Your task to perform on an android device: turn off wifi Image 0: 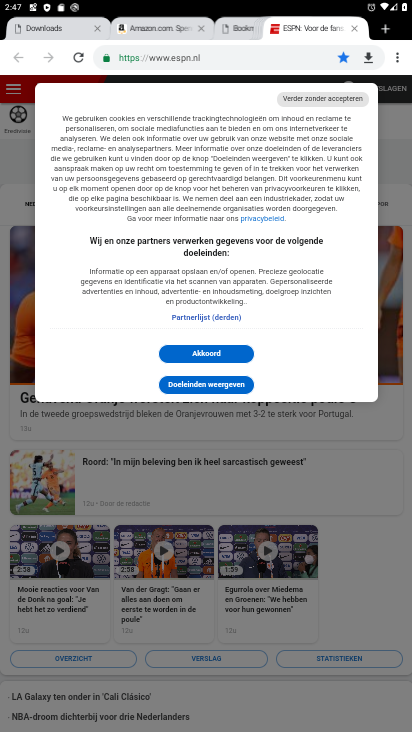
Step 0: press home button
Your task to perform on an android device: turn off wifi Image 1: 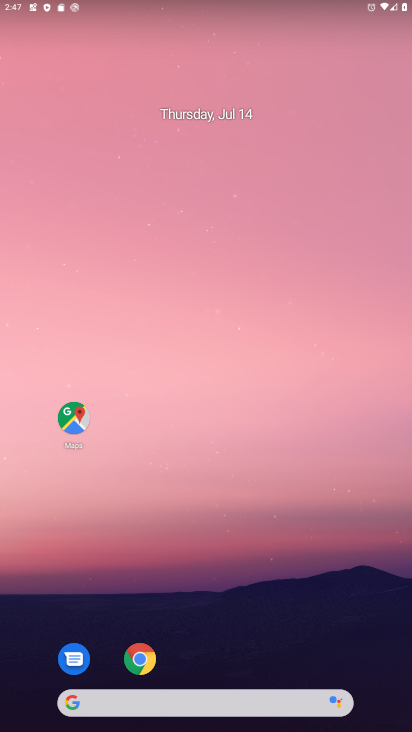
Step 1: drag from (204, 34) to (262, 499)
Your task to perform on an android device: turn off wifi Image 2: 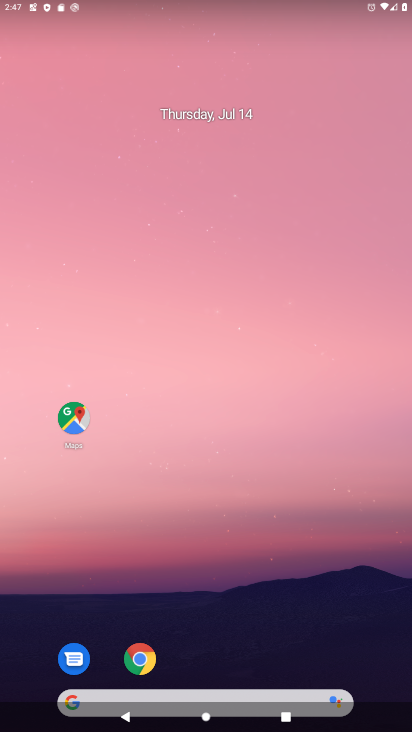
Step 2: drag from (180, 0) to (172, 446)
Your task to perform on an android device: turn off wifi Image 3: 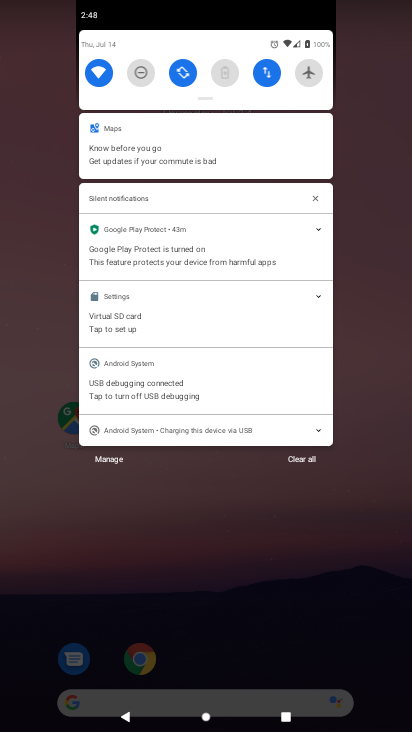
Step 3: press home button
Your task to perform on an android device: turn off wifi Image 4: 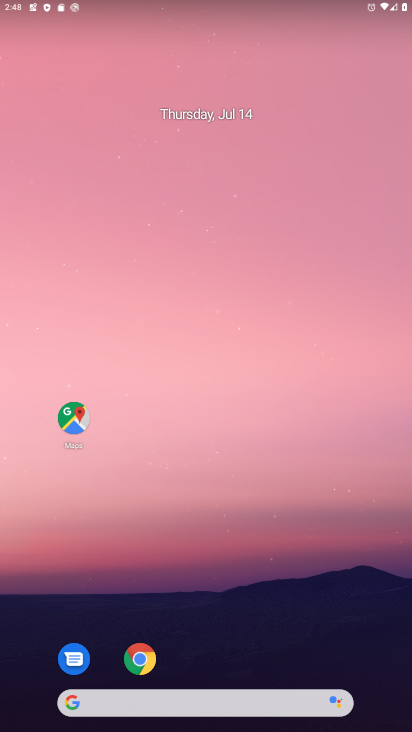
Step 4: drag from (411, 7) to (248, 615)
Your task to perform on an android device: turn off wifi Image 5: 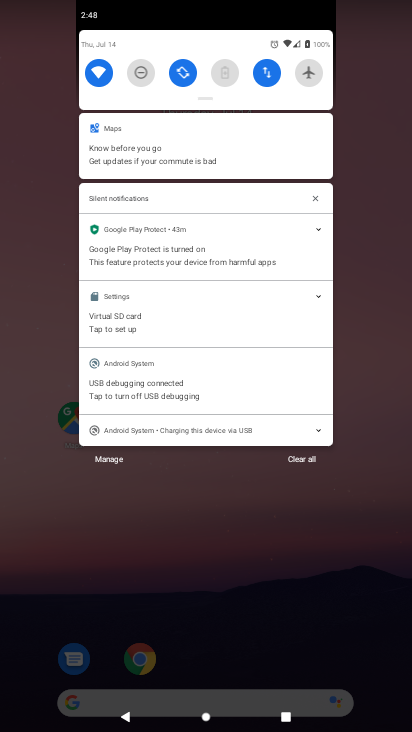
Step 5: drag from (73, 98) to (68, 149)
Your task to perform on an android device: turn off wifi Image 6: 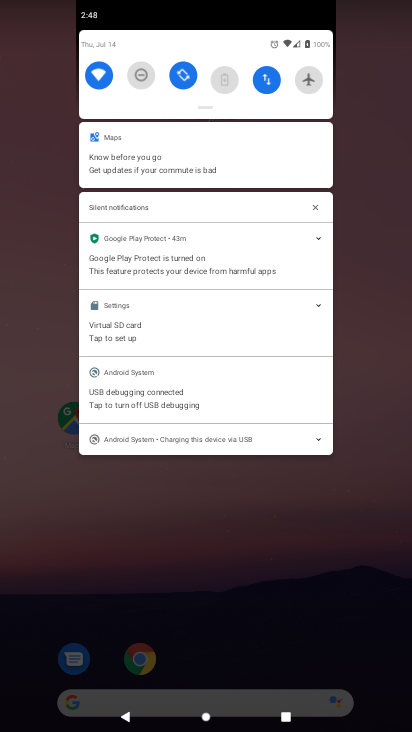
Step 6: click (92, 66)
Your task to perform on an android device: turn off wifi Image 7: 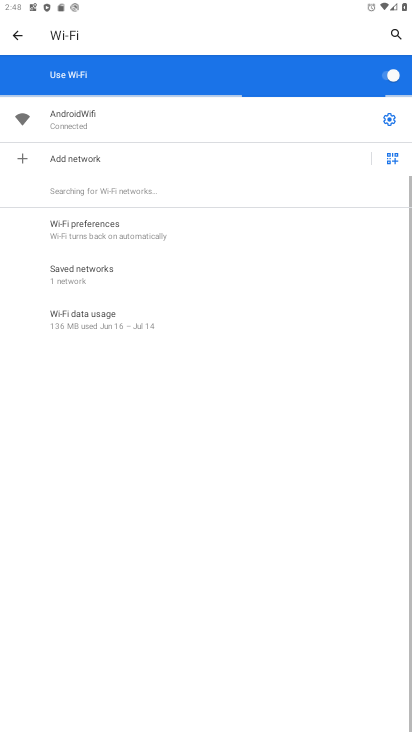
Step 7: click (394, 76)
Your task to perform on an android device: turn off wifi Image 8: 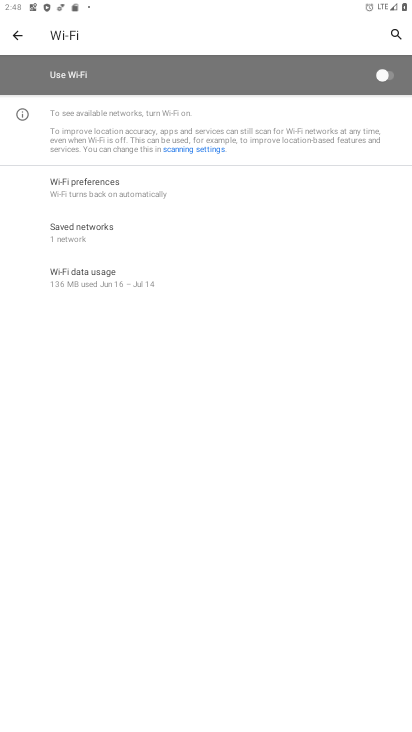
Step 8: task complete